Your task to perform on an android device: What's the weather going to be this weekend? Image 0: 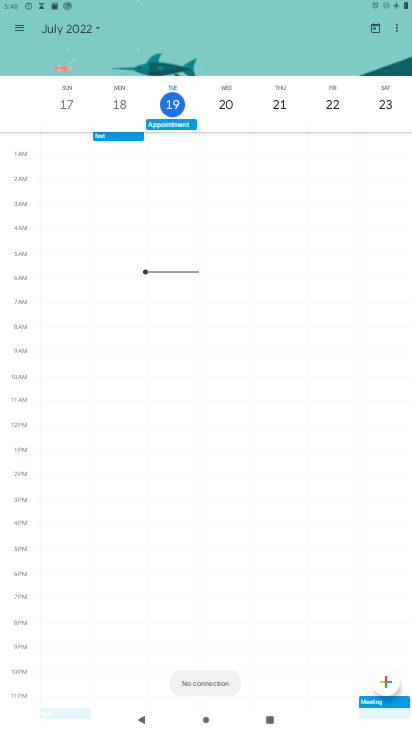
Step 0: press home button
Your task to perform on an android device: What's the weather going to be this weekend? Image 1: 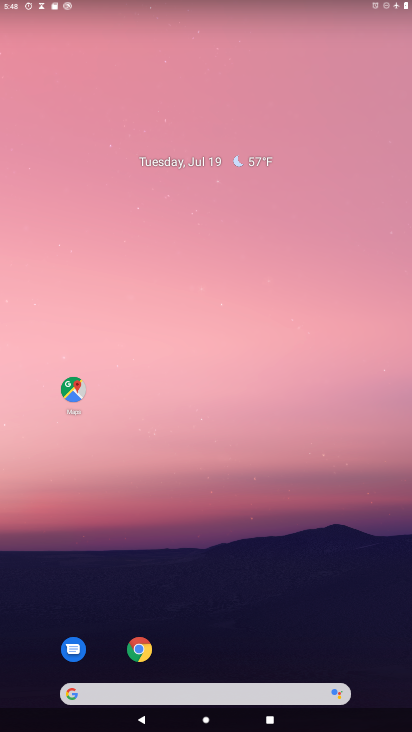
Step 1: drag from (204, 635) to (240, 16)
Your task to perform on an android device: What's the weather going to be this weekend? Image 2: 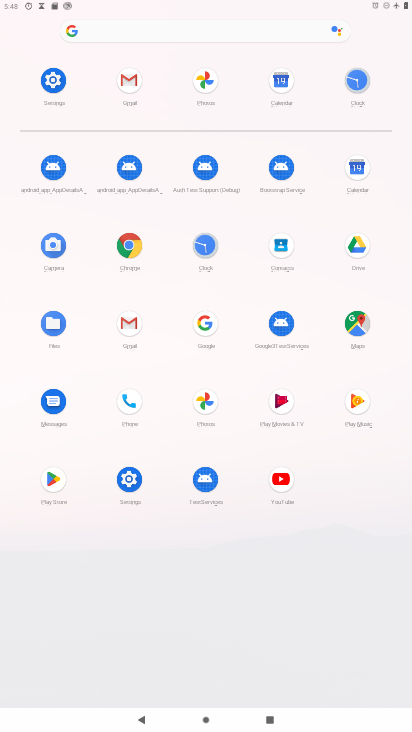
Step 2: click (205, 323)
Your task to perform on an android device: What's the weather going to be this weekend? Image 3: 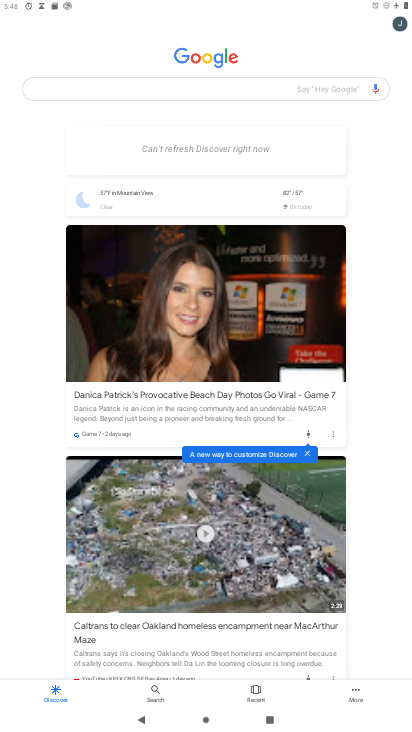
Step 3: click (96, 88)
Your task to perform on an android device: What's the weather going to be this weekend? Image 4: 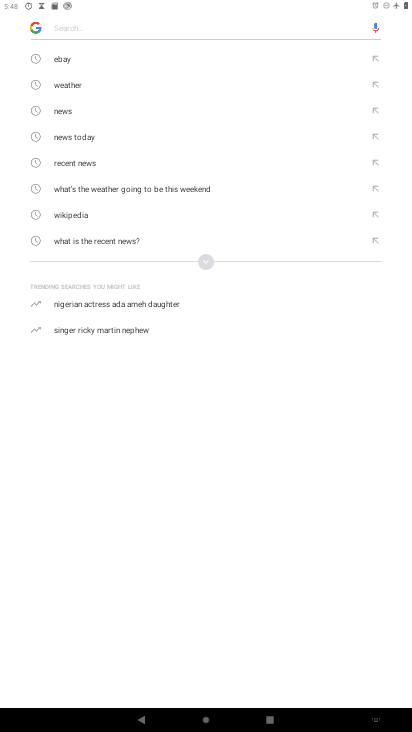
Step 4: click (75, 88)
Your task to perform on an android device: What's the weather going to be this weekend? Image 5: 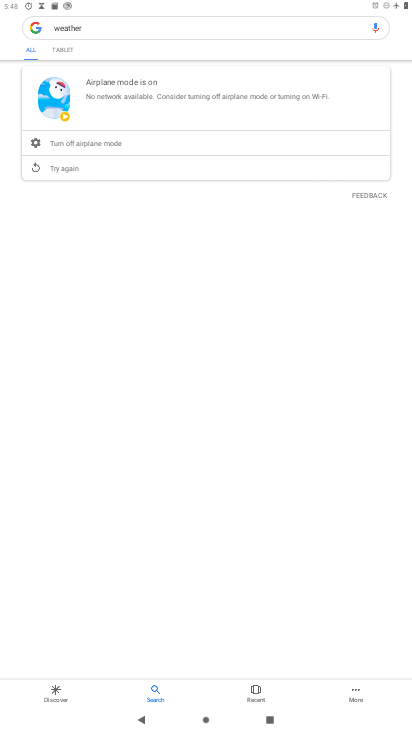
Step 5: task complete